Your task to perform on an android device: Open Chrome and go to settings Image 0: 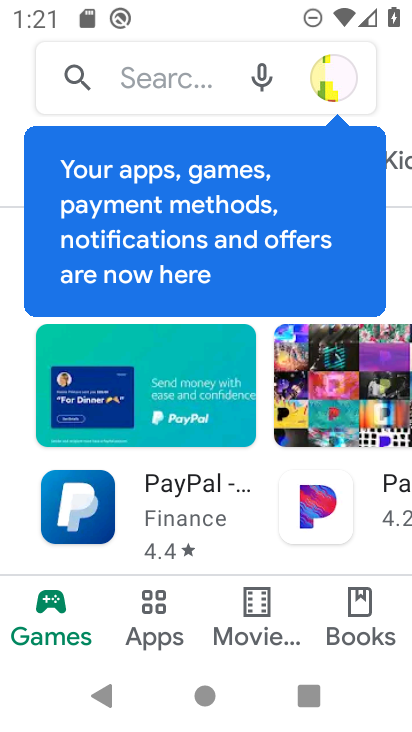
Step 0: press home button
Your task to perform on an android device: Open Chrome and go to settings Image 1: 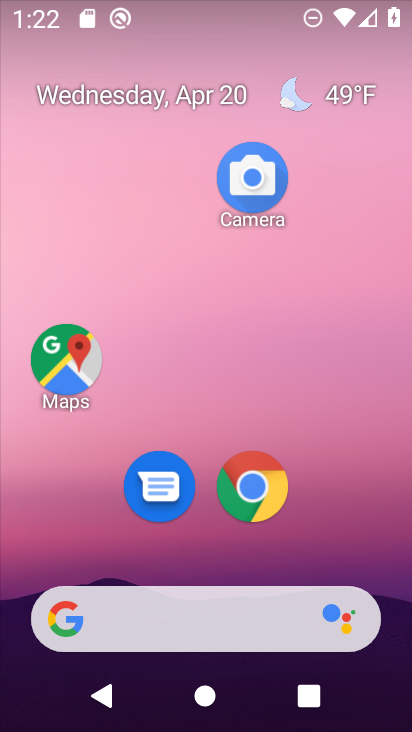
Step 1: drag from (176, 636) to (197, 257)
Your task to perform on an android device: Open Chrome and go to settings Image 2: 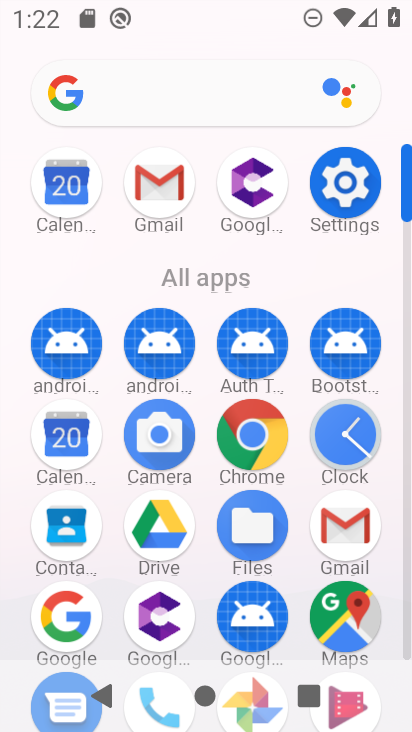
Step 2: click (251, 451)
Your task to perform on an android device: Open Chrome and go to settings Image 3: 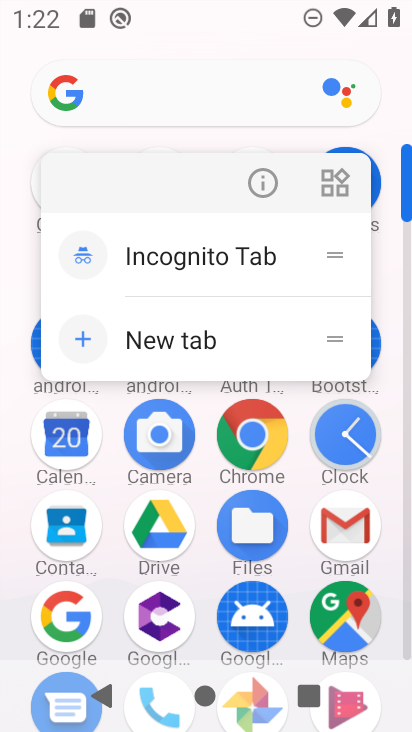
Step 3: click (254, 447)
Your task to perform on an android device: Open Chrome and go to settings Image 4: 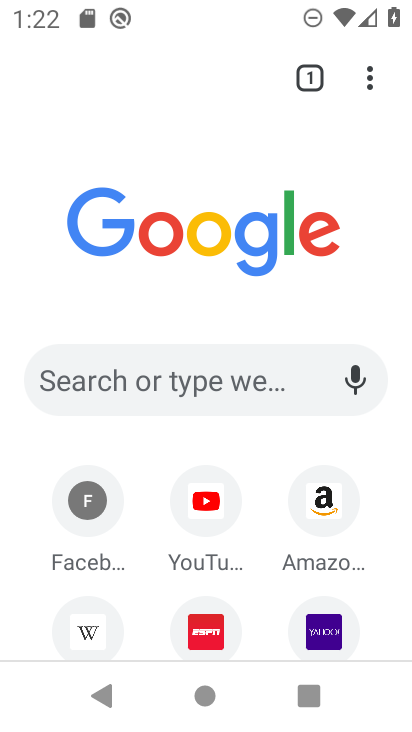
Step 4: click (356, 90)
Your task to perform on an android device: Open Chrome and go to settings Image 5: 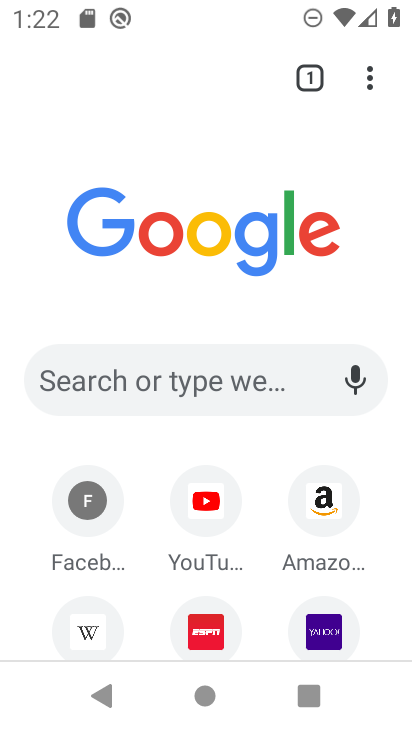
Step 5: click (354, 79)
Your task to perform on an android device: Open Chrome and go to settings Image 6: 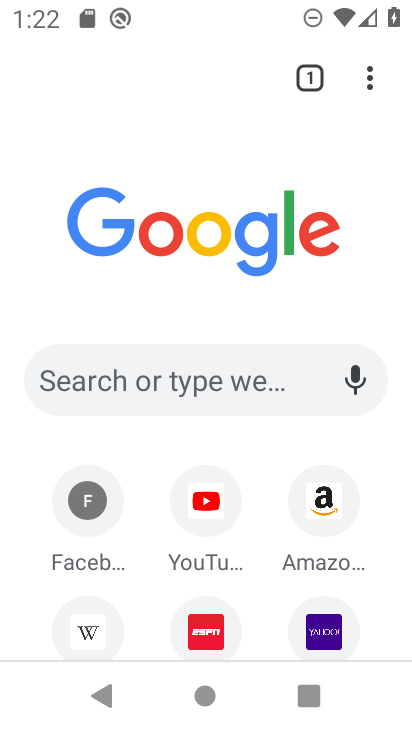
Step 6: click (364, 67)
Your task to perform on an android device: Open Chrome and go to settings Image 7: 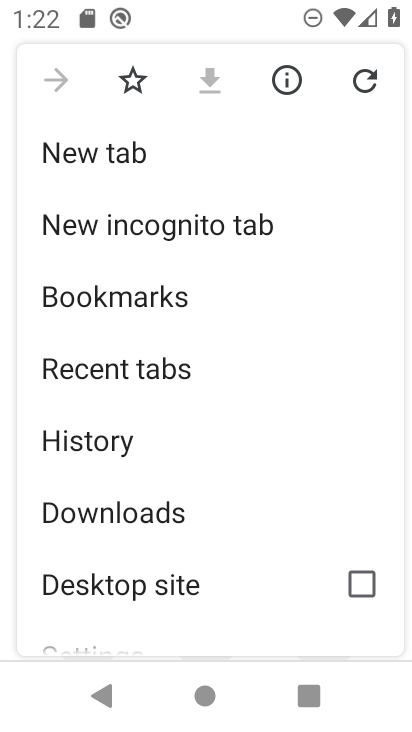
Step 7: drag from (166, 523) to (209, 393)
Your task to perform on an android device: Open Chrome and go to settings Image 8: 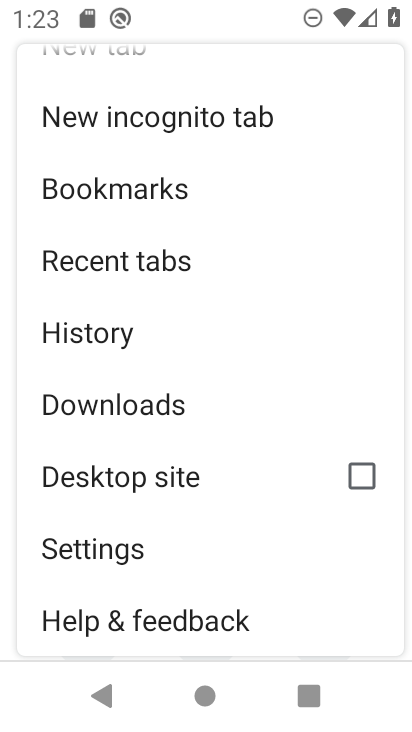
Step 8: click (106, 541)
Your task to perform on an android device: Open Chrome and go to settings Image 9: 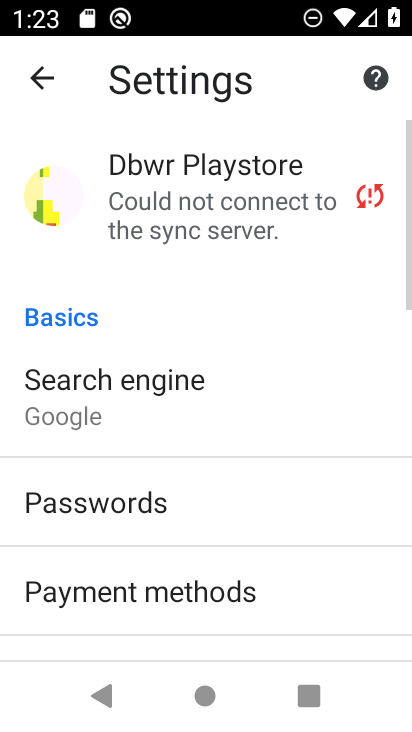
Step 9: task complete